Your task to perform on an android device: change notification settings in the gmail app Image 0: 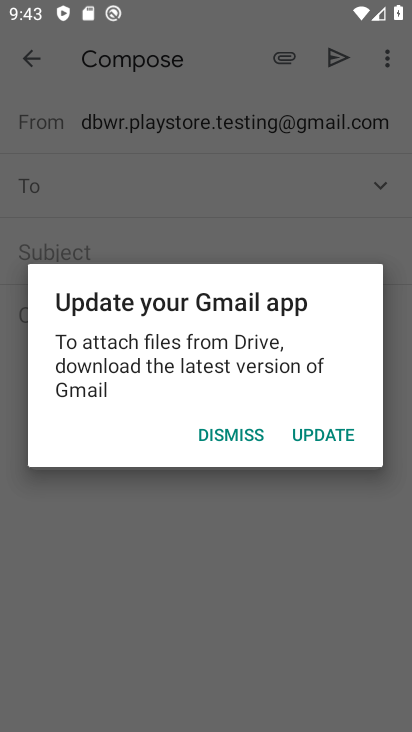
Step 0: press back button
Your task to perform on an android device: change notification settings in the gmail app Image 1: 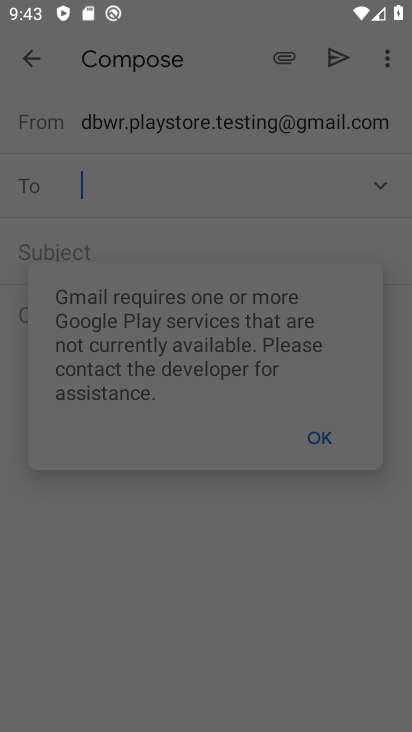
Step 1: press home button
Your task to perform on an android device: change notification settings in the gmail app Image 2: 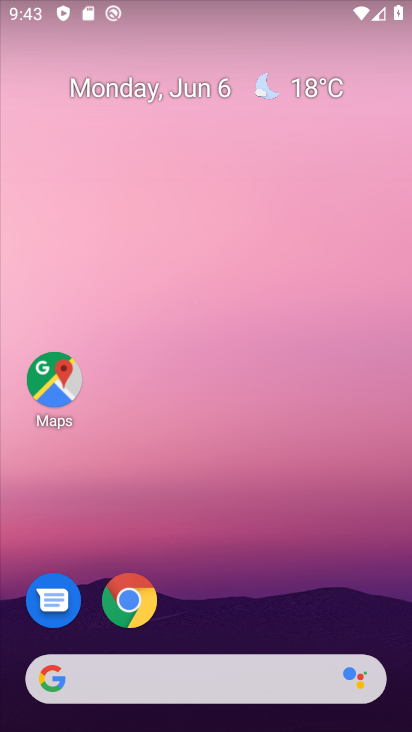
Step 2: drag from (208, 580) to (231, 23)
Your task to perform on an android device: change notification settings in the gmail app Image 3: 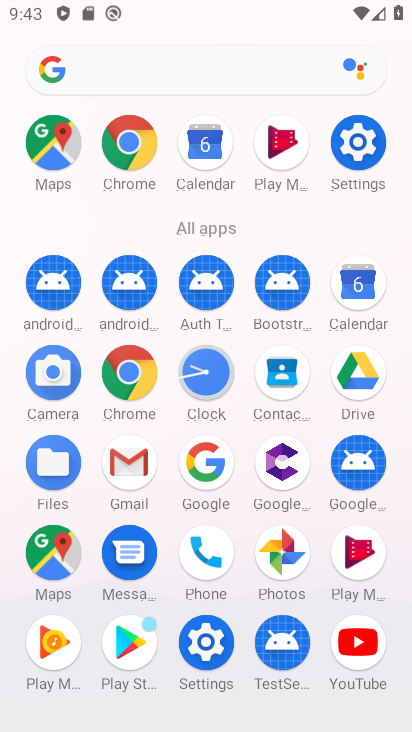
Step 3: click (127, 463)
Your task to perform on an android device: change notification settings in the gmail app Image 4: 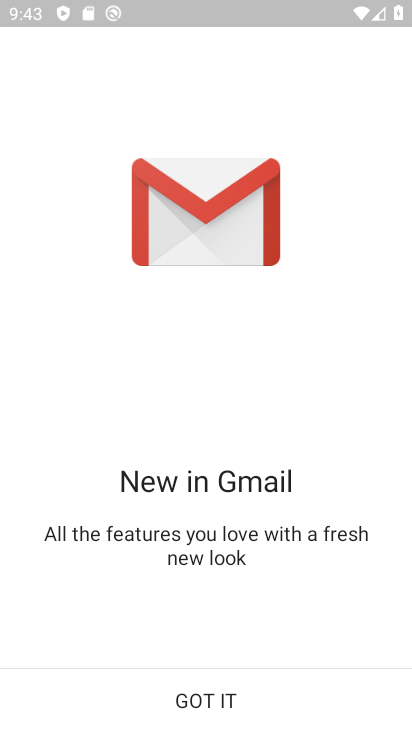
Step 4: click (215, 686)
Your task to perform on an android device: change notification settings in the gmail app Image 5: 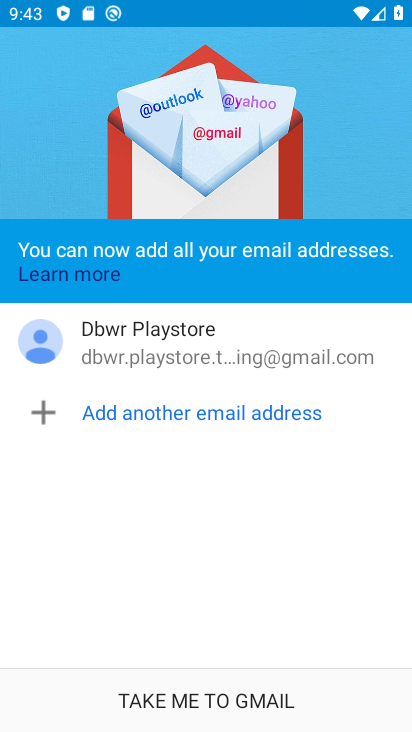
Step 5: click (215, 686)
Your task to perform on an android device: change notification settings in the gmail app Image 6: 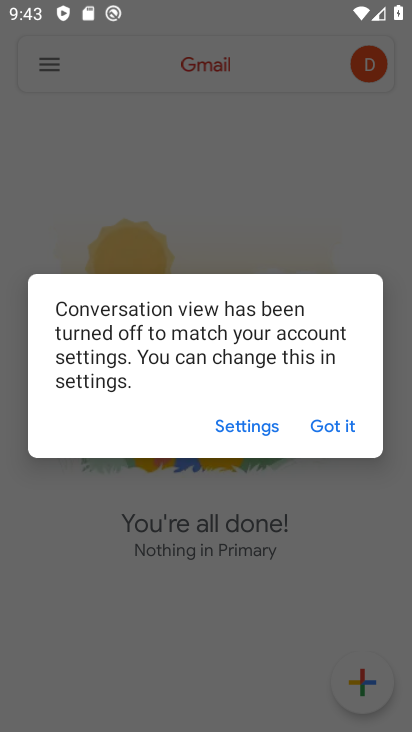
Step 6: click (335, 427)
Your task to perform on an android device: change notification settings in the gmail app Image 7: 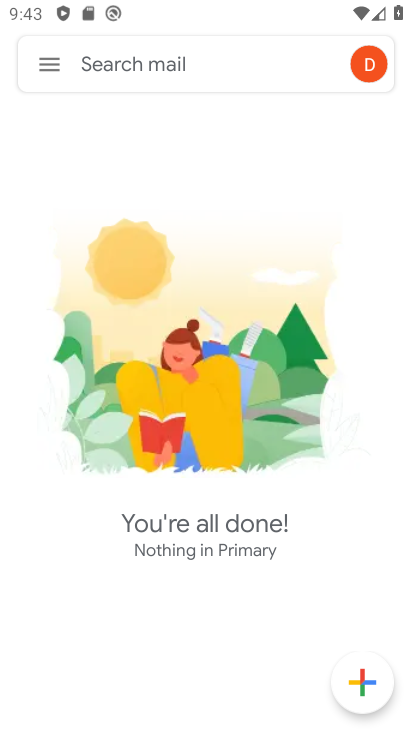
Step 7: click (58, 67)
Your task to perform on an android device: change notification settings in the gmail app Image 8: 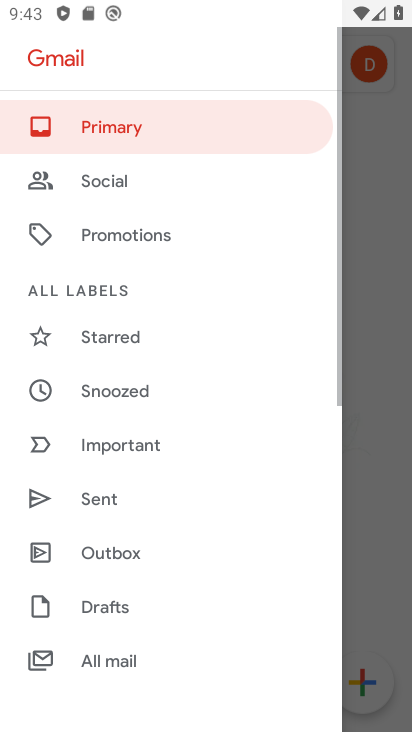
Step 8: drag from (189, 656) to (248, 220)
Your task to perform on an android device: change notification settings in the gmail app Image 9: 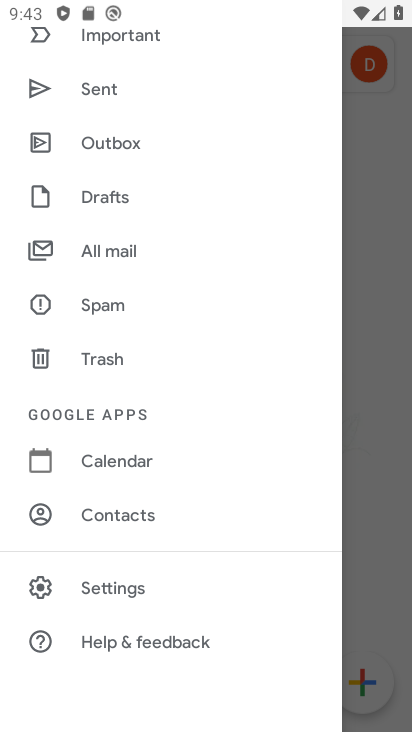
Step 9: drag from (162, 631) to (194, 337)
Your task to perform on an android device: change notification settings in the gmail app Image 10: 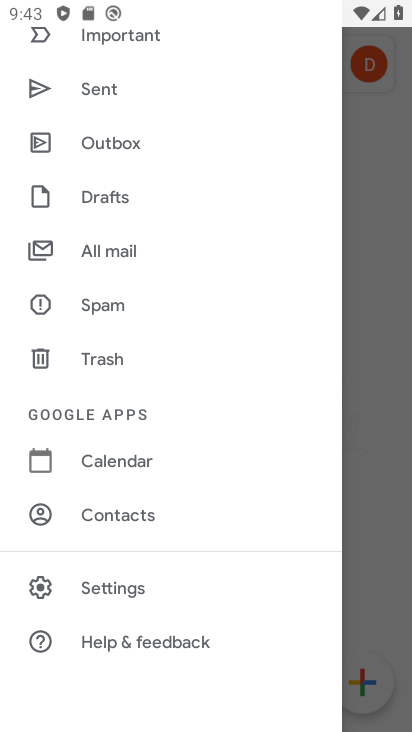
Step 10: click (122, 588)
Your task to perform on an android device: change notification settings in the gmail app Image 11: 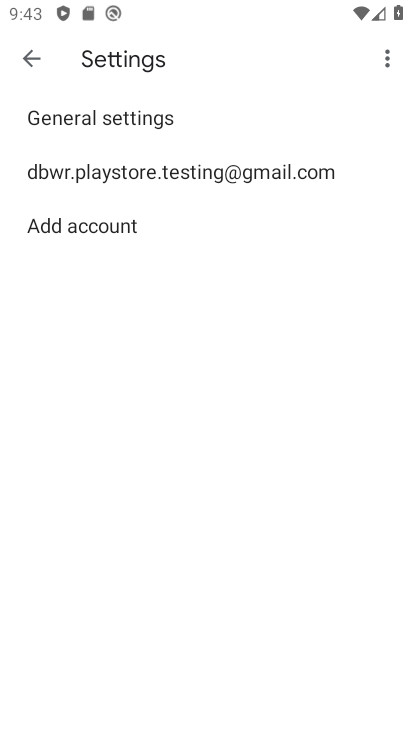
Step 11: click (180, 177)
Your task to perform on an android device: change notification settings in the gmail app Image 12: 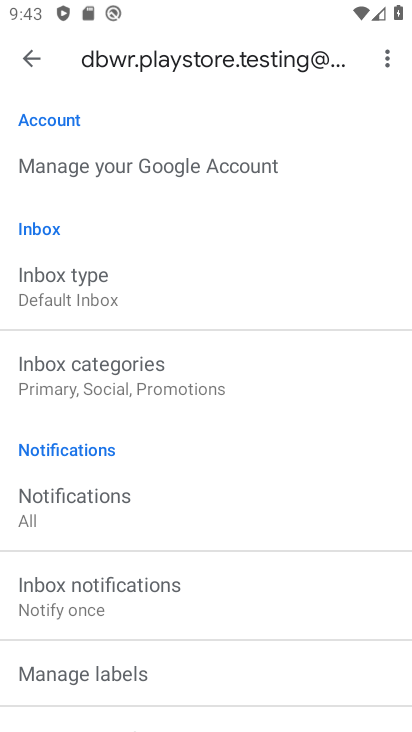
Step 12: drag from (216, 666) to (258, 290)
Your task to perform on an android device: change notification settings in the gmail app Image 13: 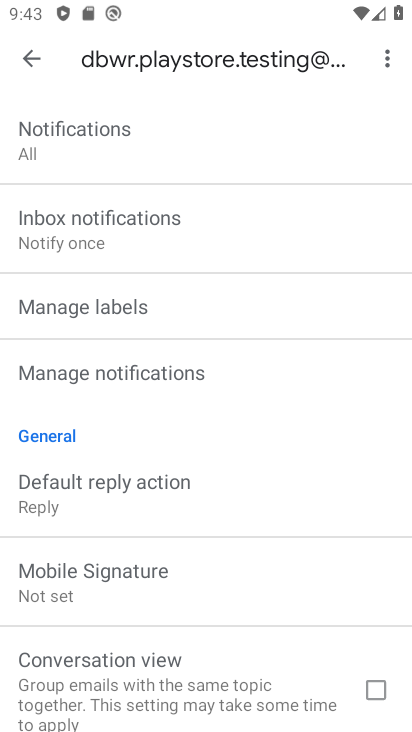
Step 13: click (182, 378)
Your task to perform on an android device: change notification settings in the gmail app Image 14: 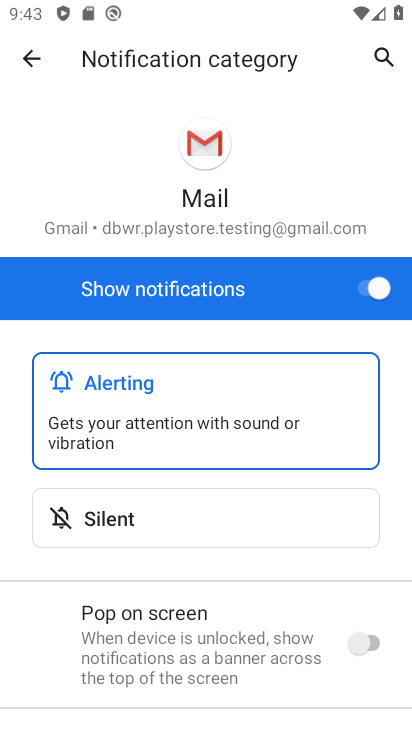
Step 14: click (370, 271)
Your task to perform on an android device: change notification settings in the gmail app Image 15: 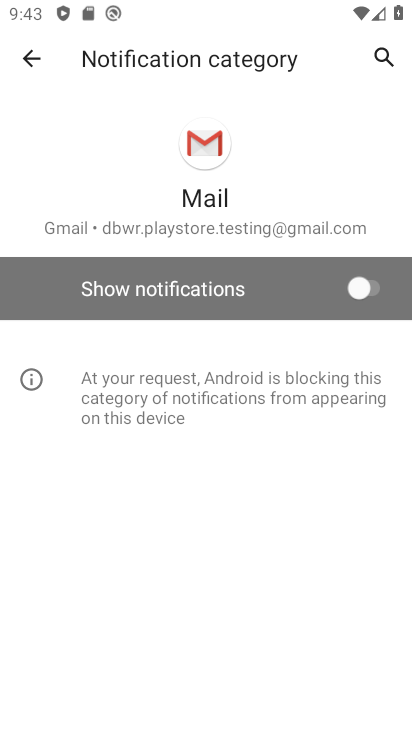
Step 15: task complete